Your task to perform on an android device: Go to battery settings Image 0: 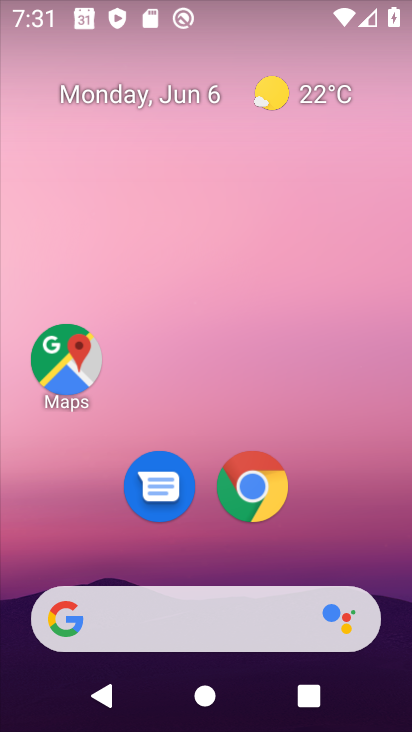
Step 0: drag from (397, 606) to (311, 121)
Your task to perform on an android device: Go to battery settings Image 1: 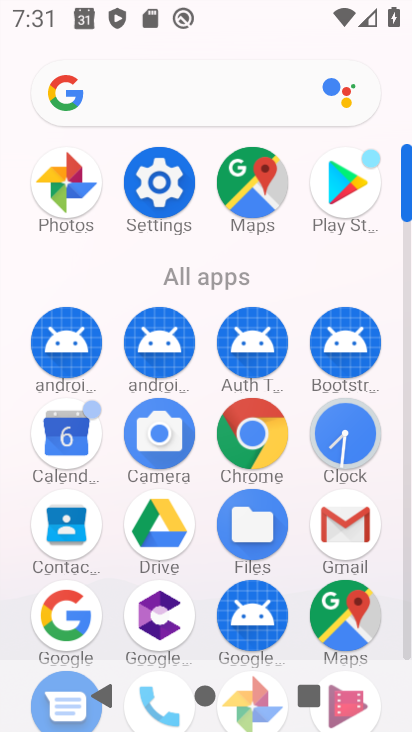
Step 1: click (154, 154)
Your task to perform on an android device: Go to battery settings Image 2: 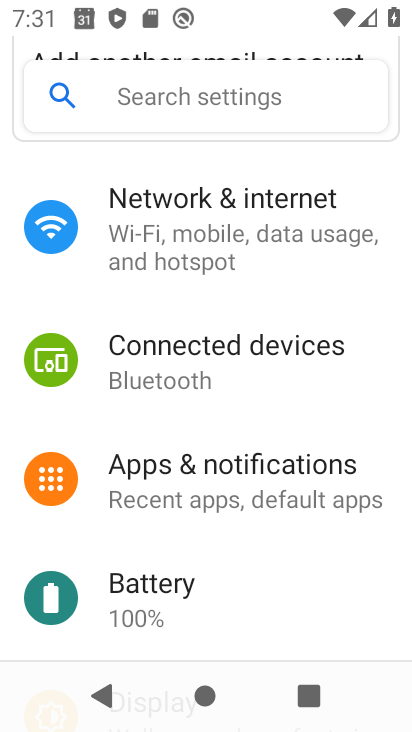
Step 2: click (169, 604)
Your task to perform on an android device: Go to battery settings Image 3: 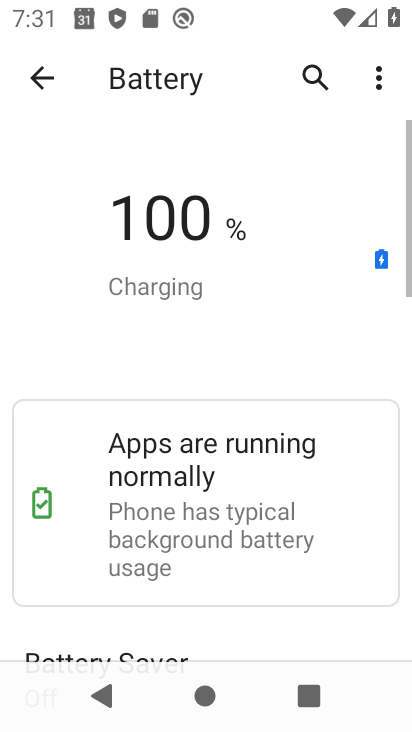
Step 3: task complete